Your task to perform on an android device: check out phone information Image 0: 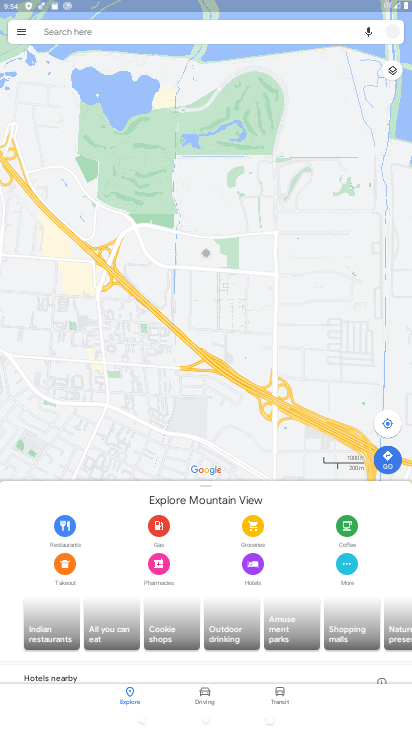
Step 0: press home button
Your task to perform on an android device: check out phone information Image 1: 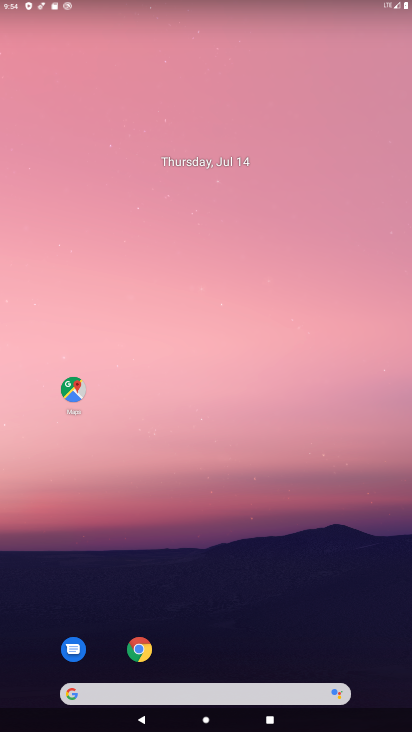
Step 1: drag from (201, 644) to (236, 151)
Your task to perform on an android device: check out phone information Image 2: 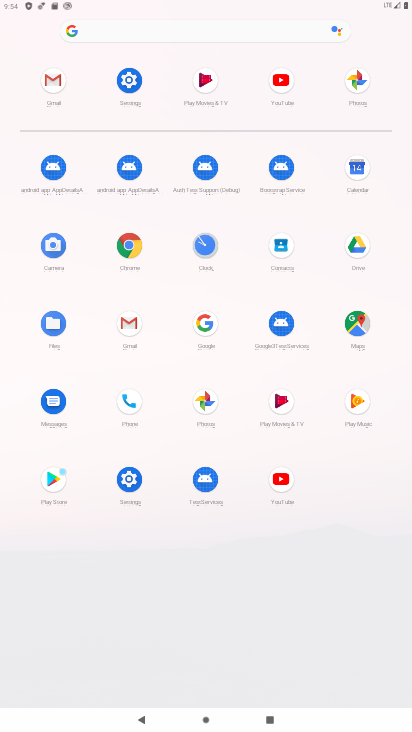
Step 2: click (112, 65)
Your task to perform on an android device: check out phone information Image 3: 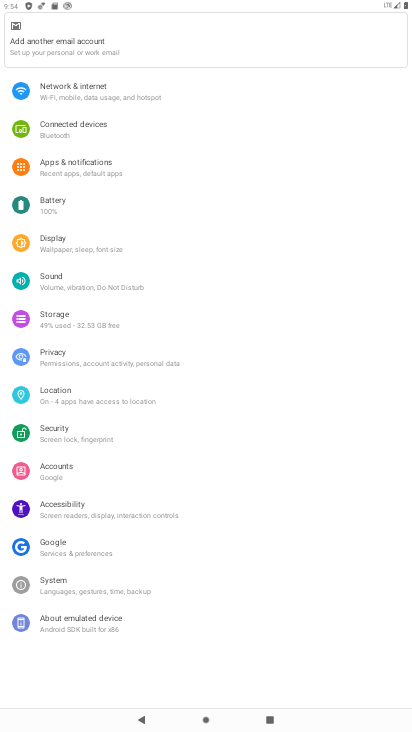
Step 3: click (141, 613)
Your task to perform on an android device: check out phone information Image 4: 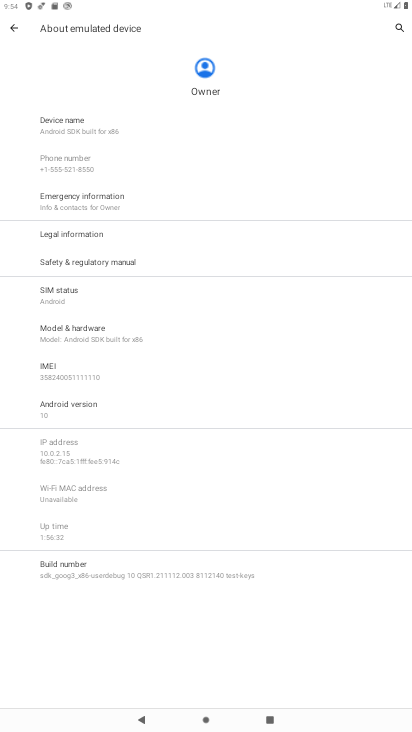
Step 4: task complete